Your task to perform on an android device: change notifications settings Image 0: 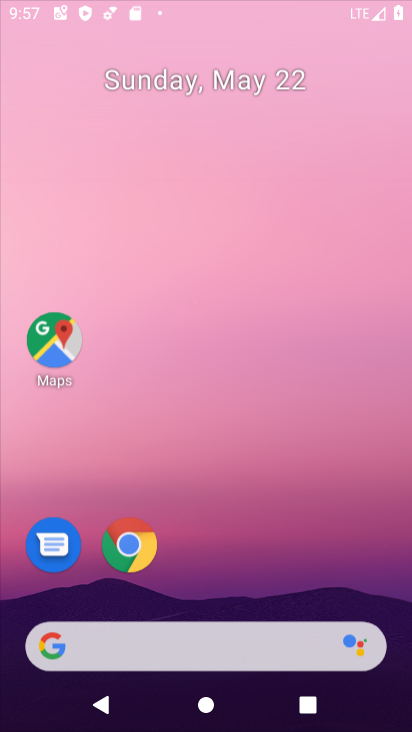
Step 0: drag from (276, 241) to (120, 29)
Your task to perform on an android device: change notifications settings Image 1: 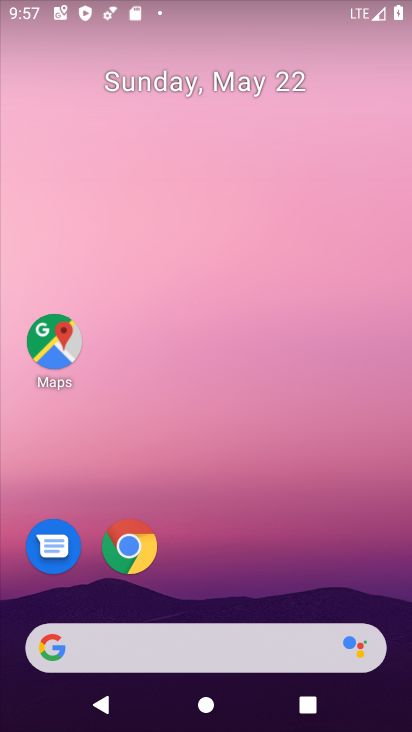
Step 1: drag from (205, 606) to (314, 39)
Your task to perform on an android device: change notifications settings Image 2: 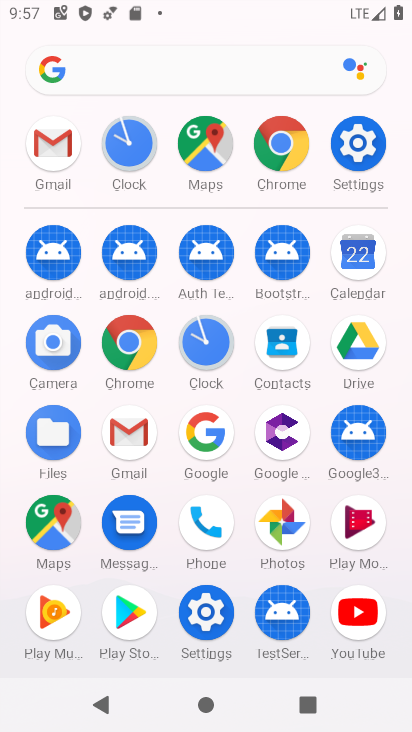
Step 2: click (367, 136)
Your task to perform on an android device: change notifications settings Image 3: 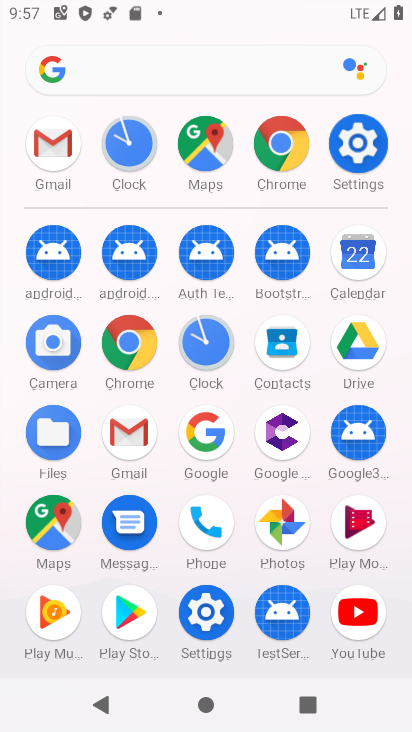
Step 3: click (366, 135)
Your task to perform on an android device: change notifications settings Image 4: 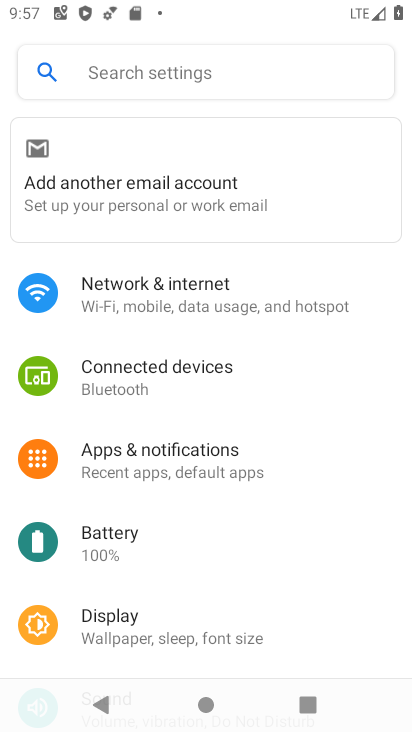
Step 4: click (156, 470)
Your task to perform on an android device: change notifications settings Image 5: 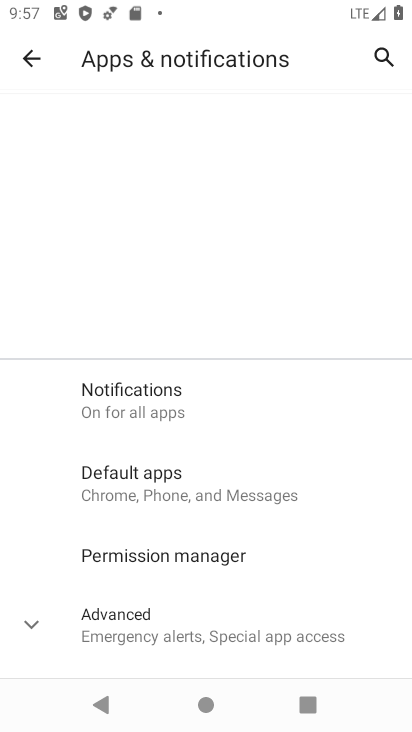
Step 5: drag from (191, 622) to (247, 132)
Your task to perform on an android device: change notifications settings Image 6: 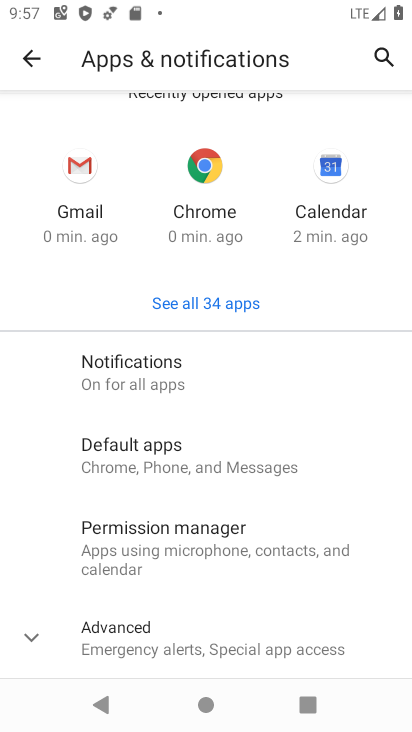
Step 6: click (142, 377)
Your task to perform on an android device: change notifications settings Image 7: 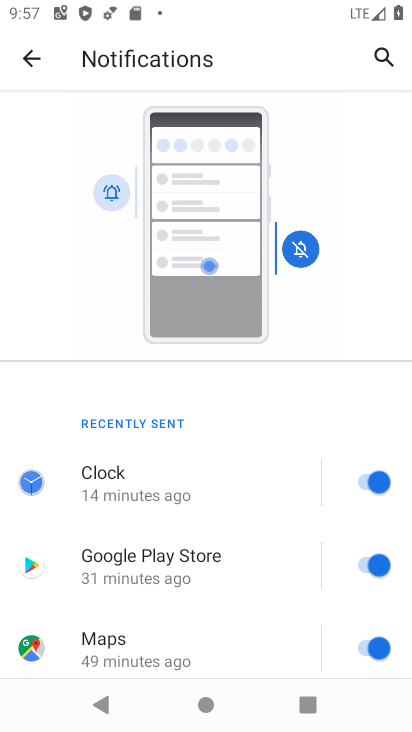
Step 7: task complete